Your task to perform on an android device: open app "Pandora - Music & Podcasts" (install if not already installed) Image 0: 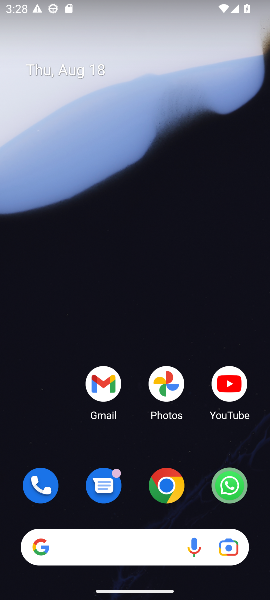
Step 0: drag from (54, 358) to (76, 20)
Your task to perform on an android device: open app "Pandora - Music & Podcasts" (install if not already installed) Image 1: 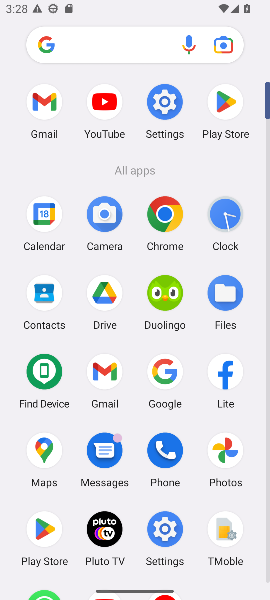
Step 1: click (45, 529)
Your task to perform on an android device: open app "Pandora - Music & Podcasts" (install if not already installed) Image 2: 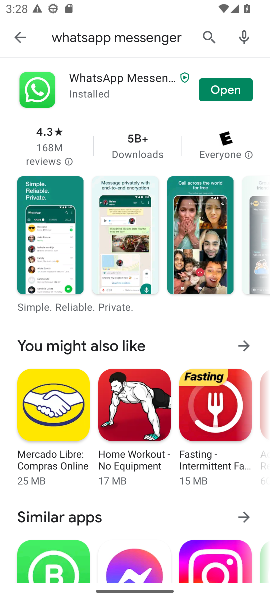
Step 2: click (215, 31)
Your task to perform on an android device: open app "Pandora - Music & Podcasts" (install if not already installed) Image 3: 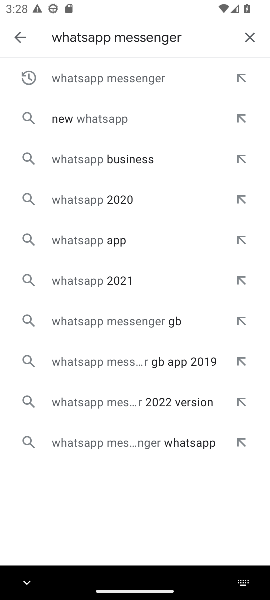
Step 3: click (263, 37)
Your task to perform on an android device: open app "Pandora - Music & Podcasts" (install if not already installed) Image 4: 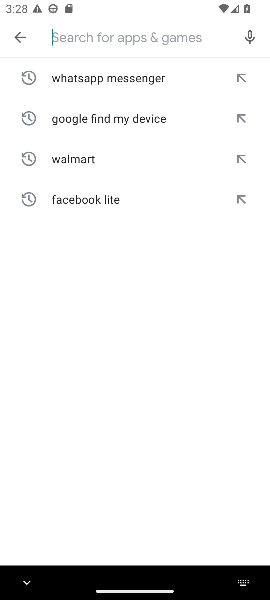
Step 4: click (126, 40)
Your task to perform on an android device: open app "Pandora - Music & Podcasts" (install if not already installed) Image 5: 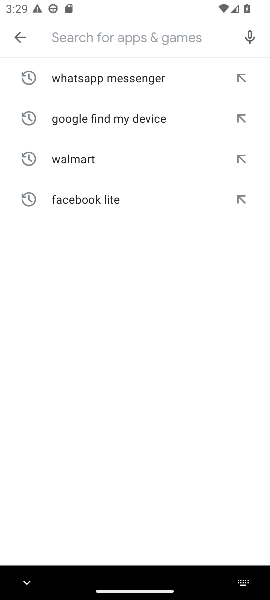
Step 5: click (121, 42)
Your task to perform on an android device: open app "Pandora - Music & Podcasts" (install if not already installed) Image 6: 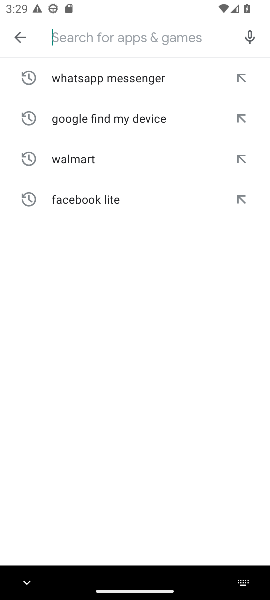
Step 6: type "pandora"
Your task to perform on an android device: open app "Pandora - Music & Podcasts" (install if not already installed) Image 7: 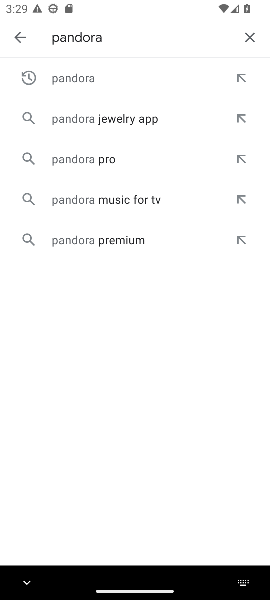
Step 7: click (79, 81)
Your task to perform on an android device: open app "Pandora - Music & Podcasts" (install if not already installed) Image 8: 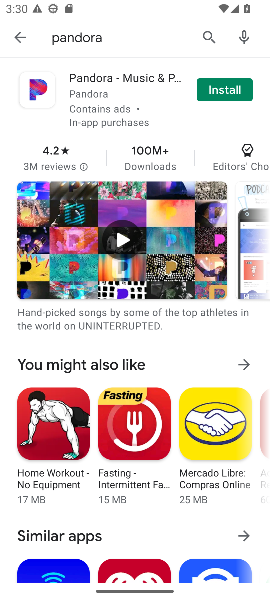
Step 8: click (227, 90)
Your task to perform on an android device: open app "Pandora - Music & Podcasts" (install if not already installed) Image 9: 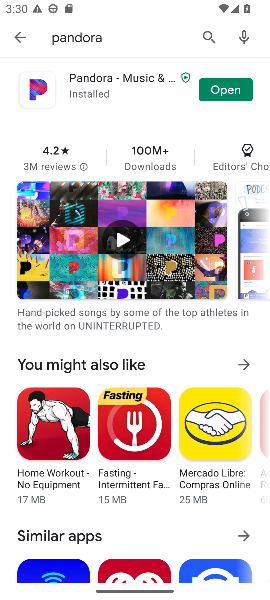
Step 9: click (238, 90)
Your task to perform on an android device: open app "Pandora - Music & Podcasts" (install if not already installed) Image 10: 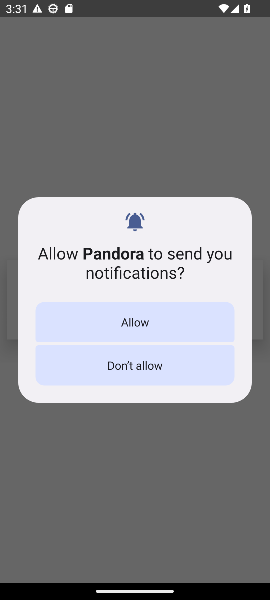
Step 10: task complete